Your task to perform on an android device: open a bookmark in the chrome app Image 0: 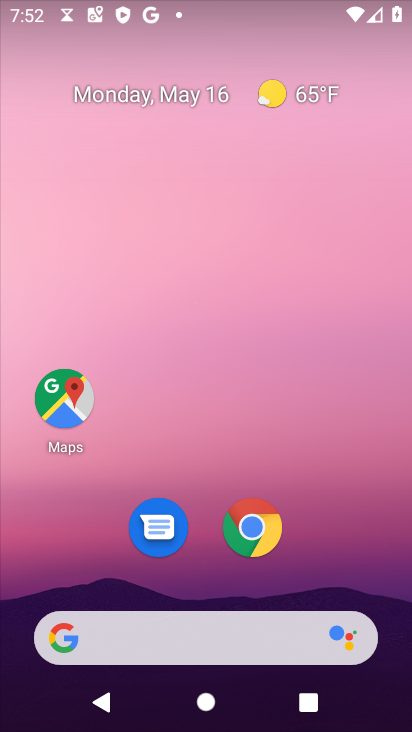
Step 0: drag from (303, 587) to (239, 250)
Your task to perform on an android device: open a bookmark in the chrome app Image 1: 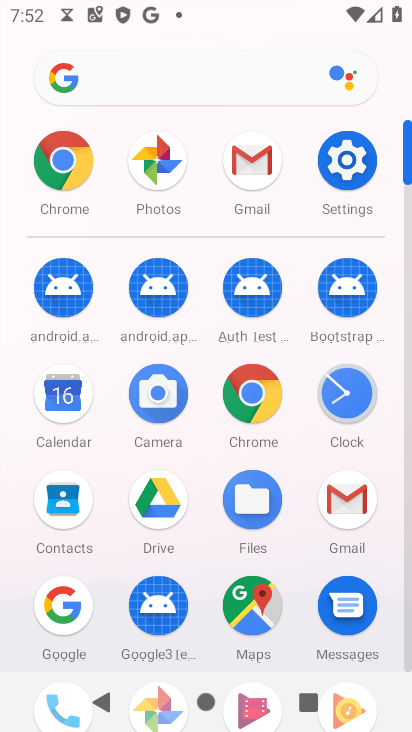
Step 1: click (238, 382)
Your task to perform on an android device: open a bookmark in the chrome app Image 2: 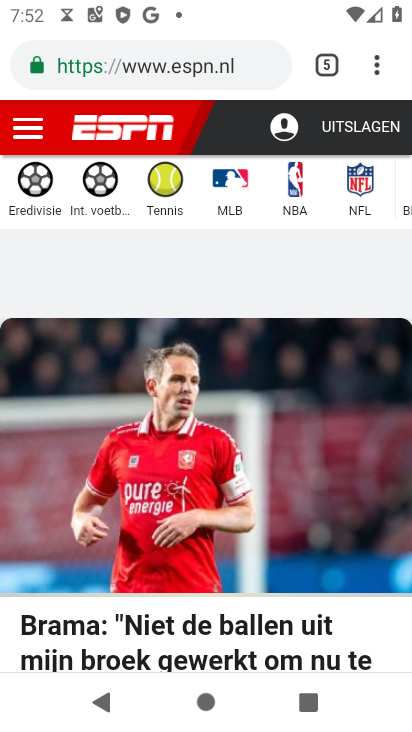
Step 2: click (368, 60)
Your task to perform on an android device: open a bookmark in the chrome app Image 3: 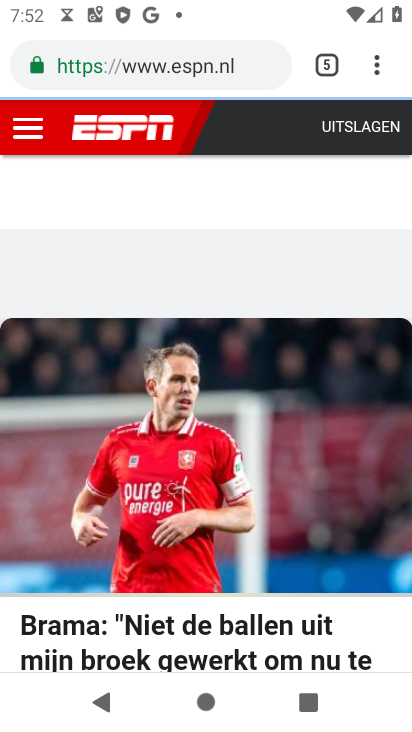
Step 3: click (363, 54)
Your task to perform on an android device: open a bookmark in the chrome app Image 4: 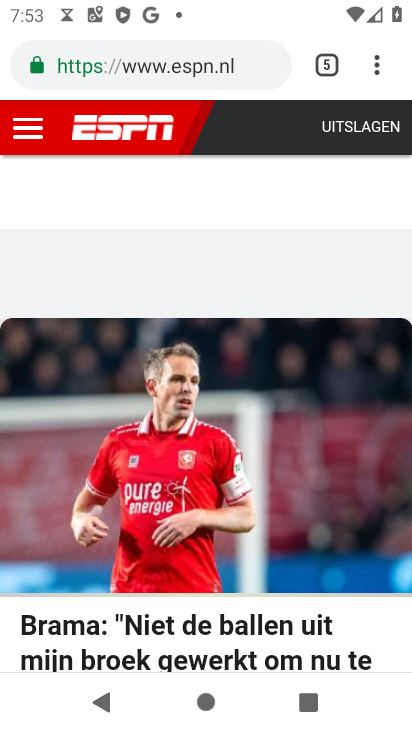
Step 4: click (359, 63)
Your task to perform on an android device: open a bookmark in the chrome app Image 5: 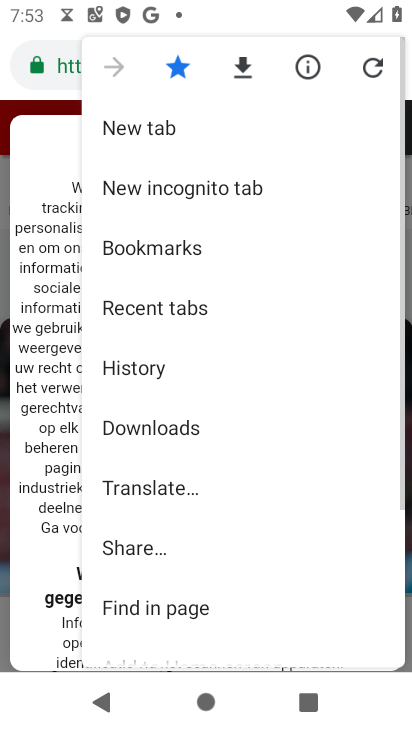
Step 5: click (190, 238)
Your task to perform on an android device: open a bookmark in the chrome app Image 6: 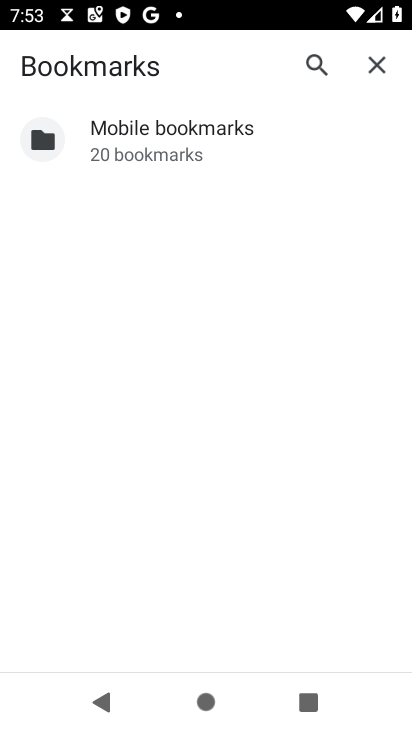
Step 6: task complete